Your task to perform on an android device: open a new tab in the chrome app Image 0: 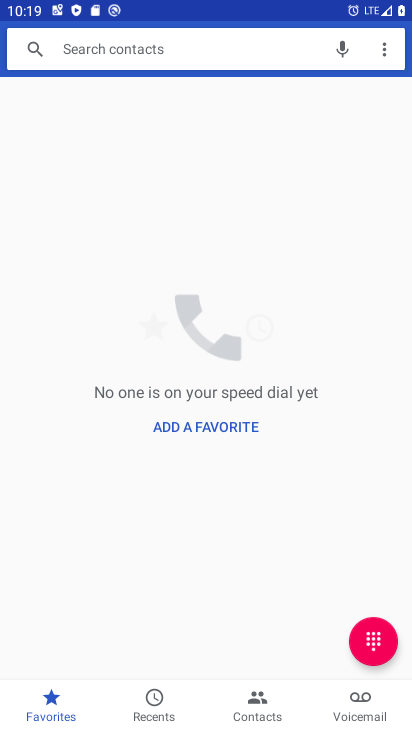
Step 0: press home button
Your task to perform on an android device: open a new tab in the chrome app Image 1: 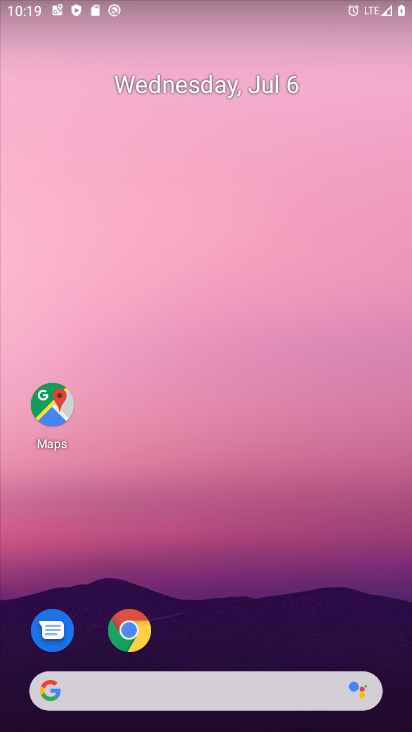
Step 1: click (133, 635)
Your task to perform on an android device: open a new tab in the chrome app Image 2: 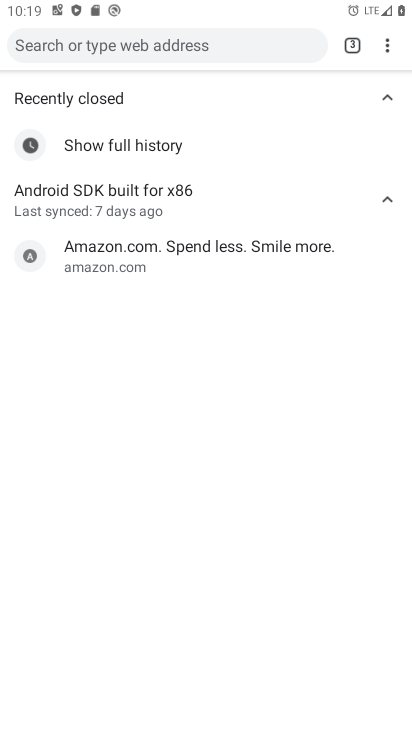
Step 2: click (390, 48)
Your task to perform on an android device: open a new tab in the chrome app Image 3: 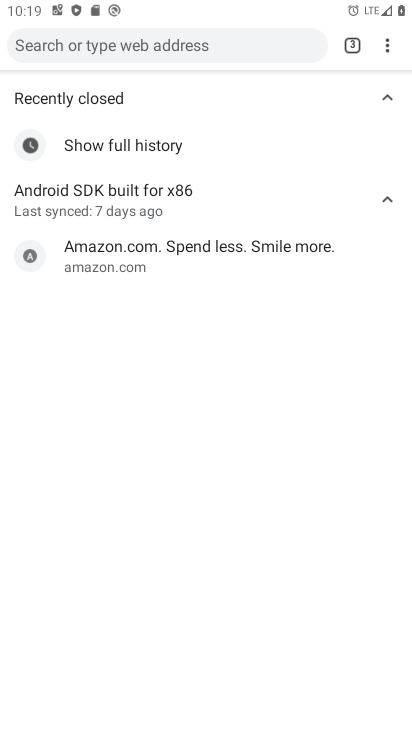
Step 3: click (385, 50)
Your task to perform on an android device: open a new tab in the chrome app Image 4: 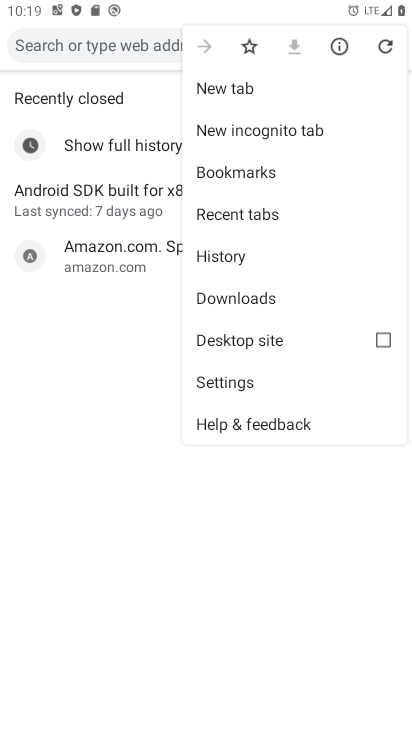
Step 4: click (219, 90)
Your task to perform on an android device: open a new tab in the chrome app Image 5: 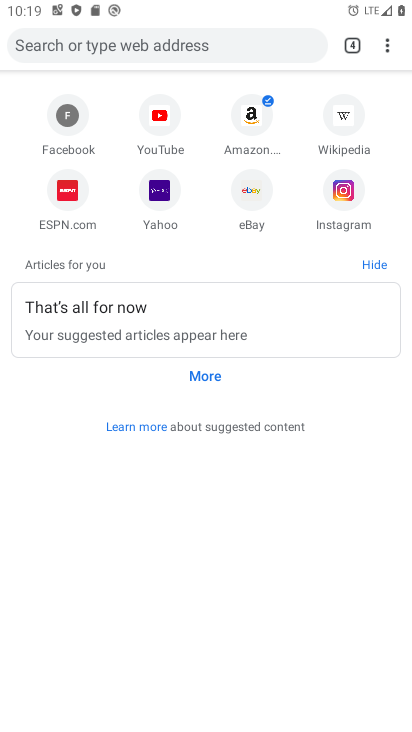
Step 5: task complete